Your task to perform on an android device: Show me productivity apps on the Play Store Image 0: 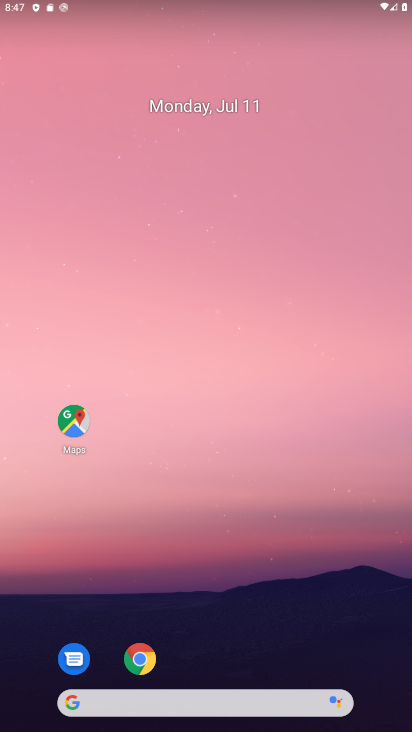
Step 0: drag from (228, 727) to (222, 668)
Your task to perform on an android device: Show me productivity apps on the Play Store Image 1: 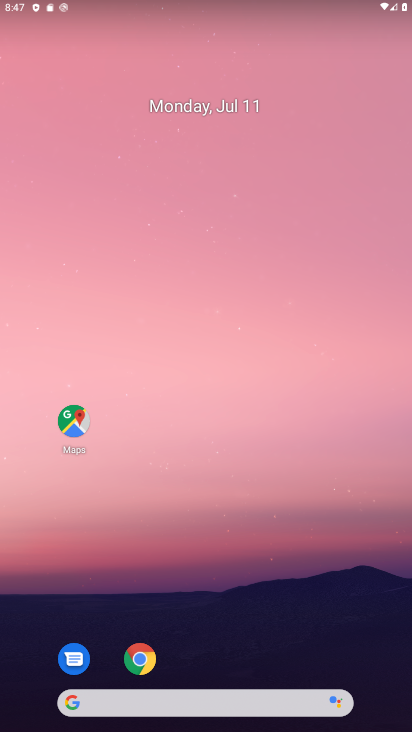
Step 1: drag from (221, 284) to (221, 158)
Your task to perform on an android device: Show me productivity apps on the Play Store Image 2: 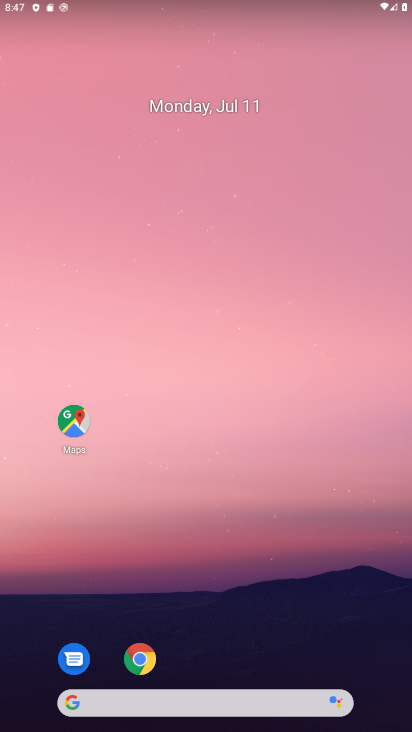
Step 2: drag from (250, 714) to (206, 91)
Your task to perform on an android device: Show me productivity apps on the Play Store Image 3: 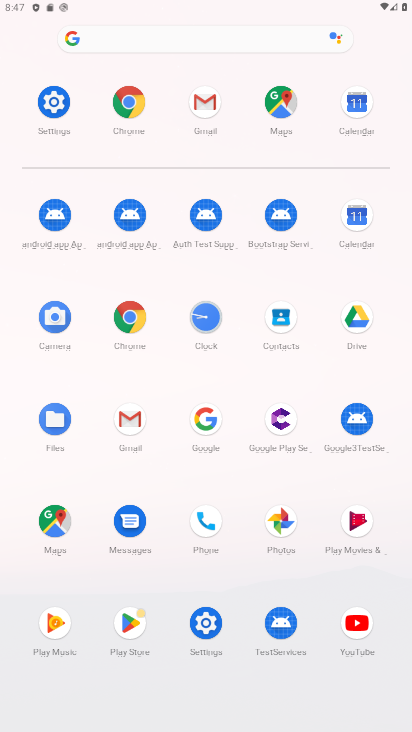
Step 3: click (134, 622)
Your task to perform on an android device: Show me productivity apps on the Play Store Image 4: 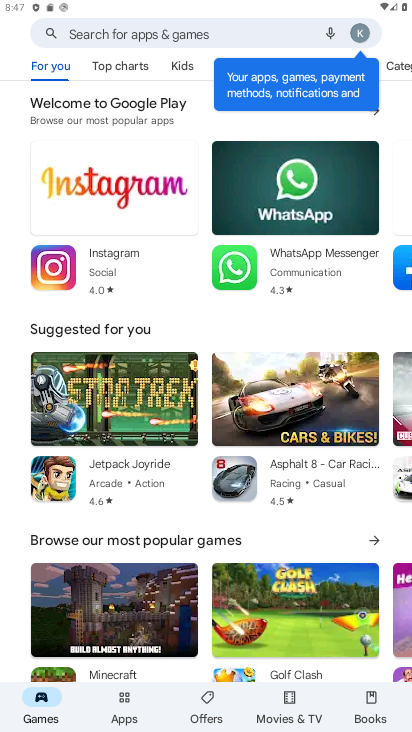
Step 4: click (126, 708)
Your task to perform on an android device: Show me productivity apps on the Play Store Image 5: 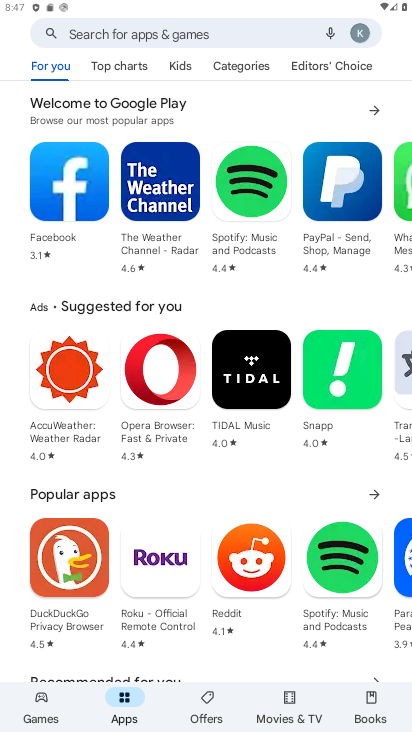
Step 5: click (251, 63)
Your task to perform on an android device: Show me productivity apps on the Play Store Image 6: 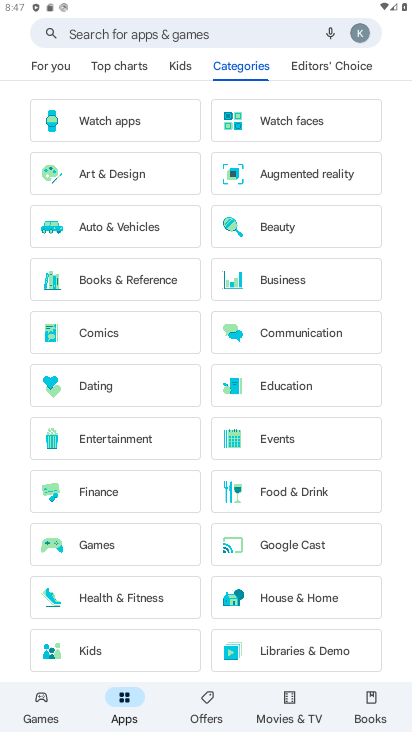
Step 6: drag from (203, 630) to (206, 287)
Your task to perform on an android device: Show me productivity apps on the Play Store Image 7: 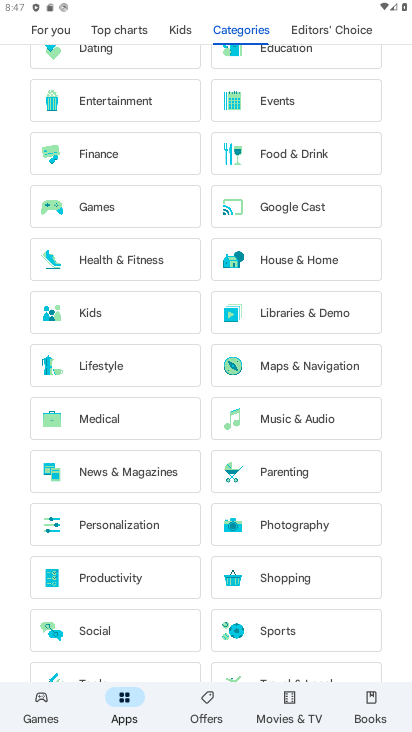
Step 7: click (122, 580)
Your task to perform on an android device: Show me productivity apps on the Play Store Image 8: 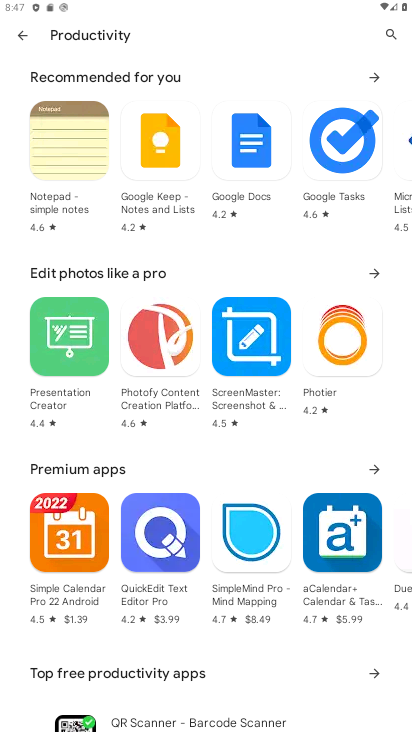
Step 8: task complete